Your task to perform on an android device: Turn on the flashlight Image 0: 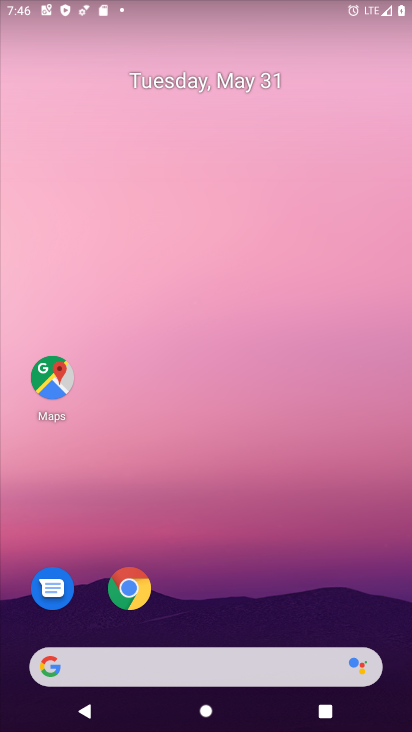
Step 0: drag from (232, 638) to (283, 81)
Your task to perform on an android device: Turn on the flashlight Image 1: 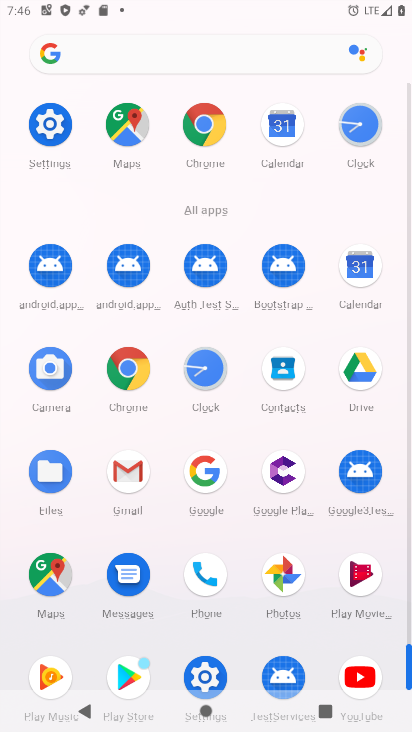
Step 1: click (212, 671)
Your task to perform on an android device: Turn on the flashlight Image 2: 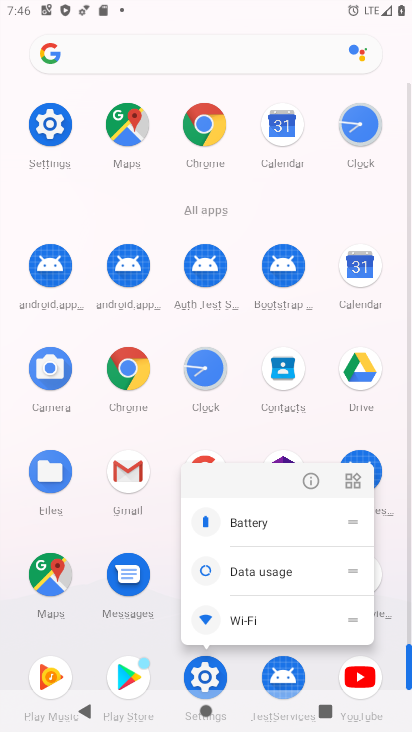
Step 2: click (213, 668)
Your task to perform on an android device: Turn on the flashlight Image 3: 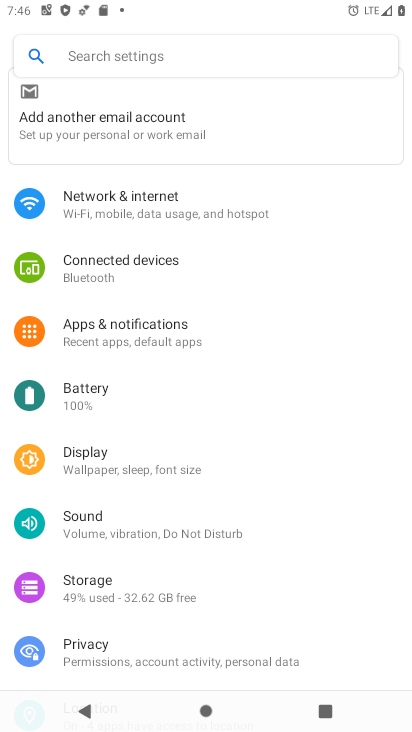
Step 3: click (158, 51)
Your task to perform on an android device: Turn on the flashlight Image 4: 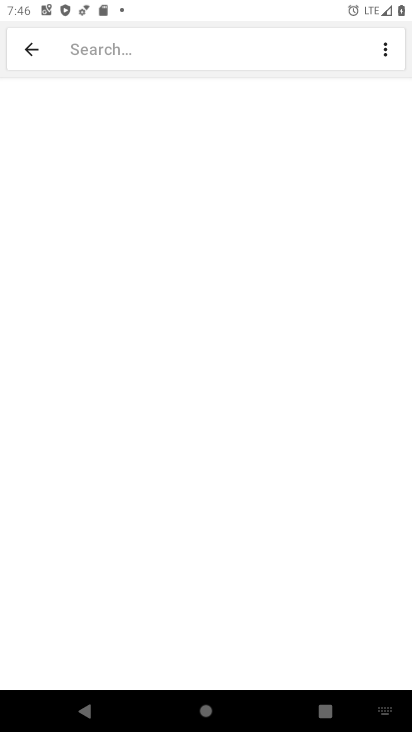
Step 4: type "flashlight"
Your task to perform on an android device: Turn on the flashlight Image 5: 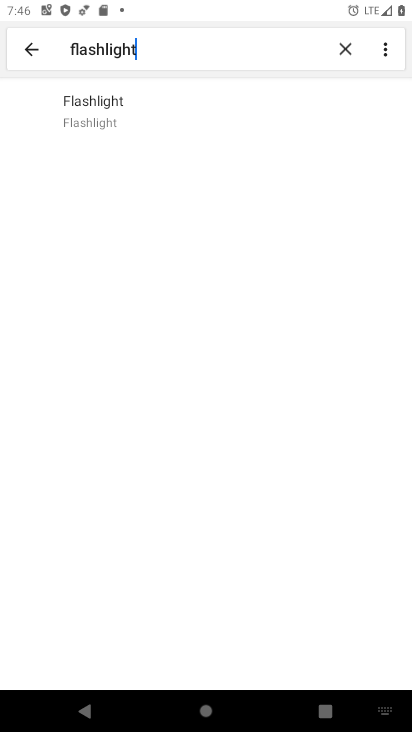
Step 5: click (223, 123)
Your task to perform on an android device: Turn on the flashlight Image 6: 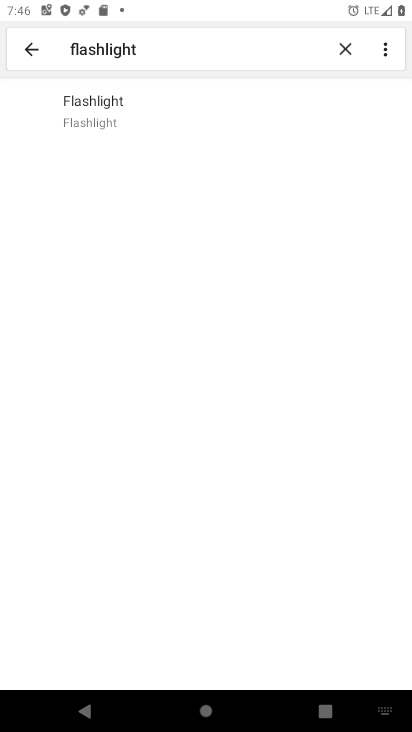
Step 6: click (113, 116)
Your task to perform on an android device: Turn on the flashlight Image 7: 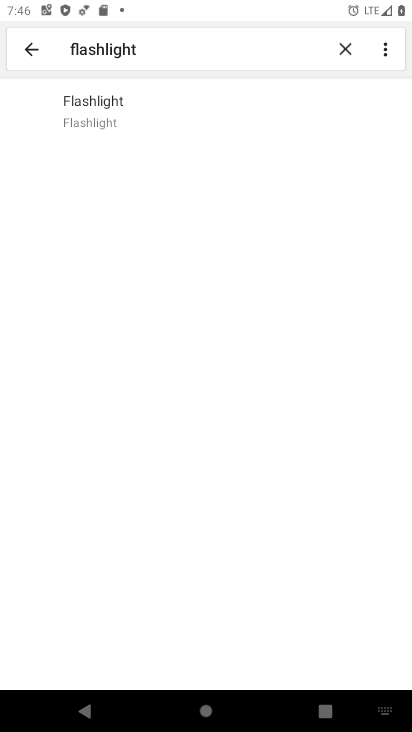
Step 7: click (114, 114)
Your task to perform on an android device: Turn on the flashlight Image 8: 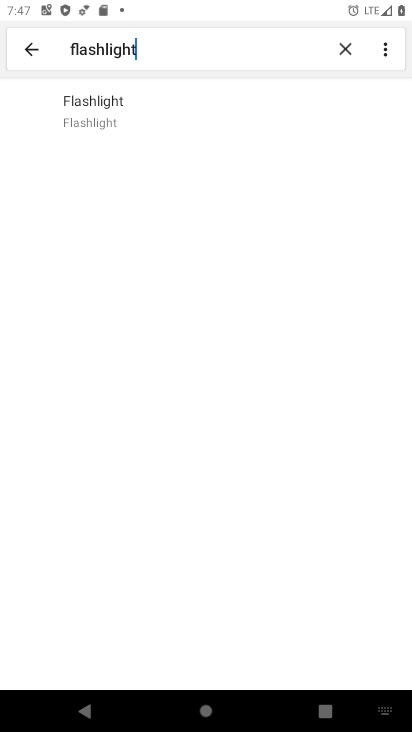
Step 8: click (114, 114)
Your task to perform on an android device: Turn on the flashlight Image 9: 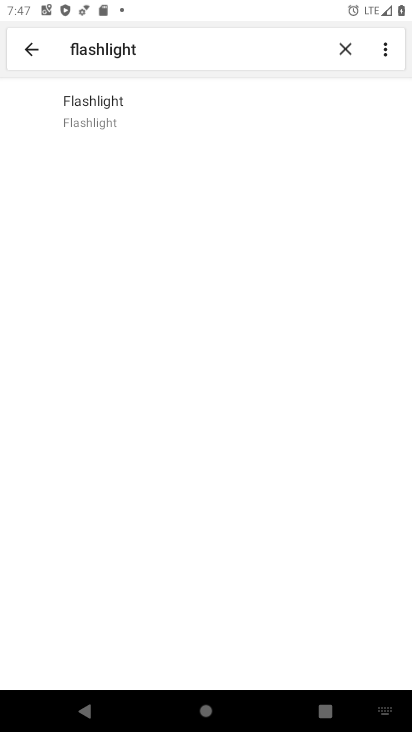
Step 9: click (114, 114)
Your task to perform on an android device: Turn on the flashlight Image 10: 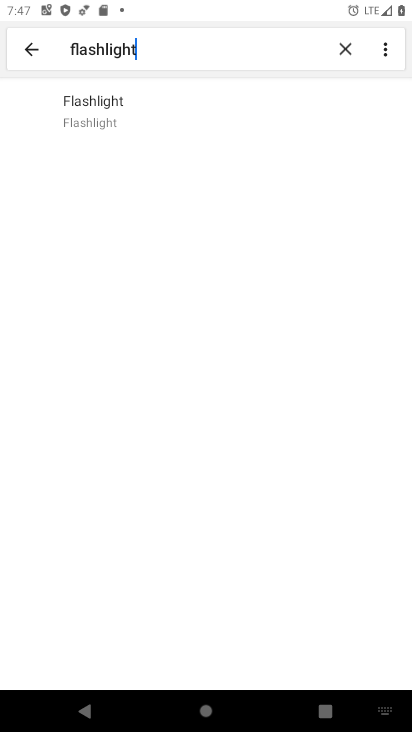
Step 10: task complete